Your task to perform on an android device: Empty the shopping cart on walmart.com. Add razer blade to the cart on walmart.com Image 0: 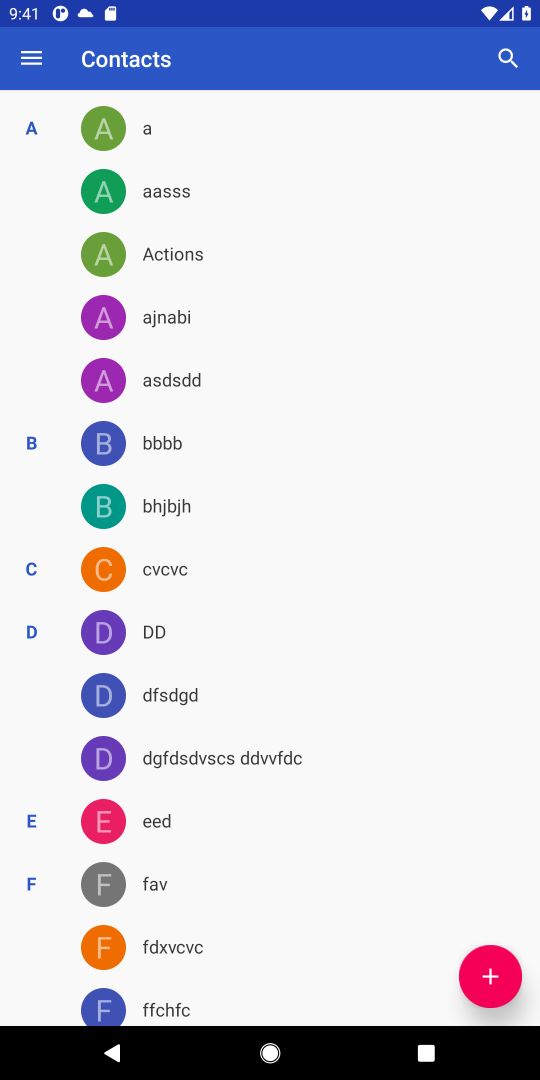
Step 0: press home button
Your task to perform on an android device: Empty the shopping cart on walmart.com. Add razer blade to the cart on walmart.com Image 1: 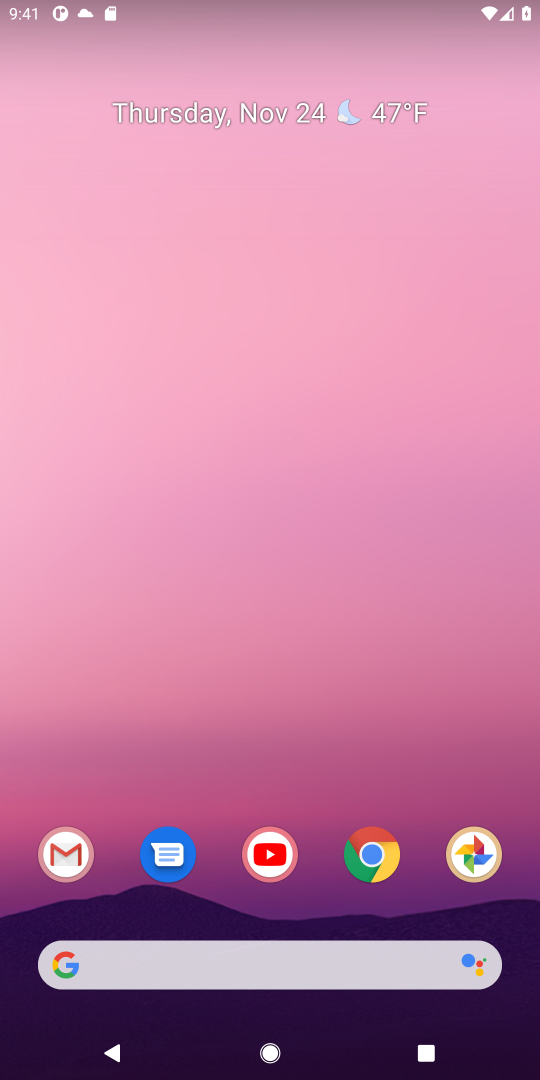
Step 1: click (376, 862)
Your task to perform on an android device: Empty the shopping cart on walmart.com. Add razer blade to the cart on walmart.com Image 2: 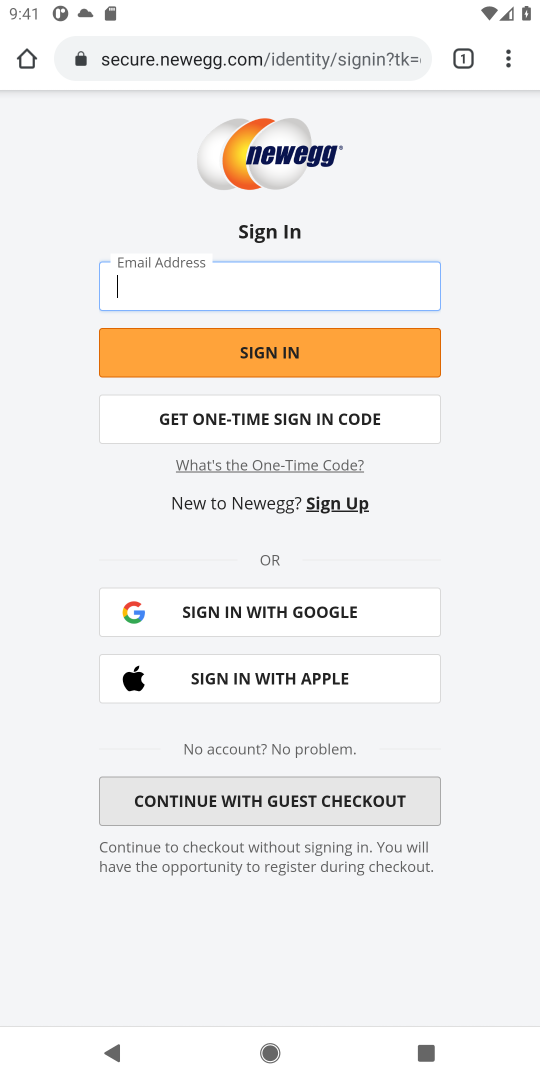
Step 2: click (187, 65)
Your task to perform on an android device: Empty the shopping cart on walmart.com. Add razer blade to the cart on walmart.com Image 3: 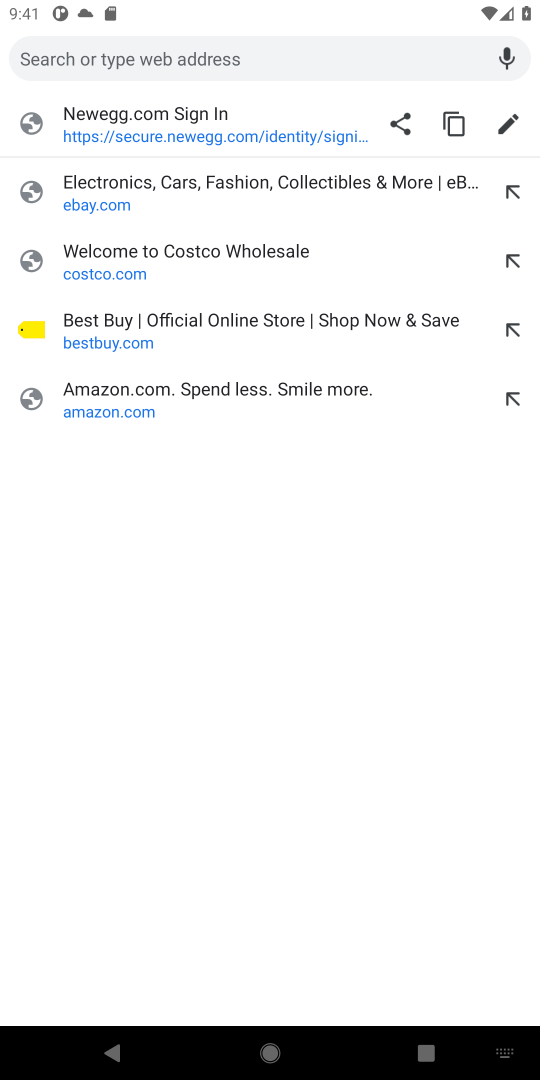
Step 3: type "walmart.com"
Your task to perform on an android device: Empty the shopping cart on walmart.com. Add razer blade to the cart on walmart.com Image 4: 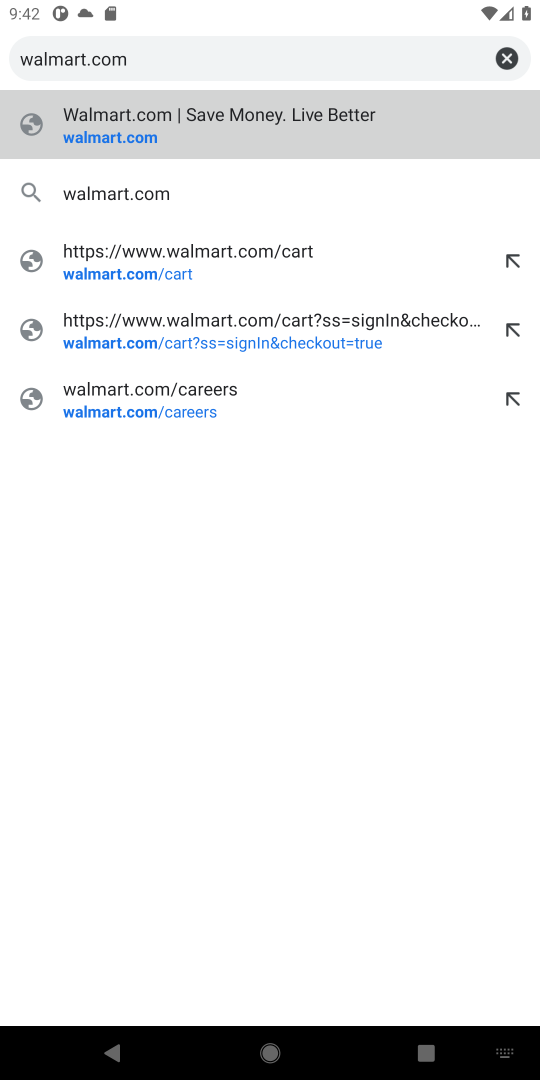
Step 4: click (126, 128)
Your task to perform on an android device: Empty the shopping cart on walmart.com. Add razer blade to the cart on walmart.com Image 5: 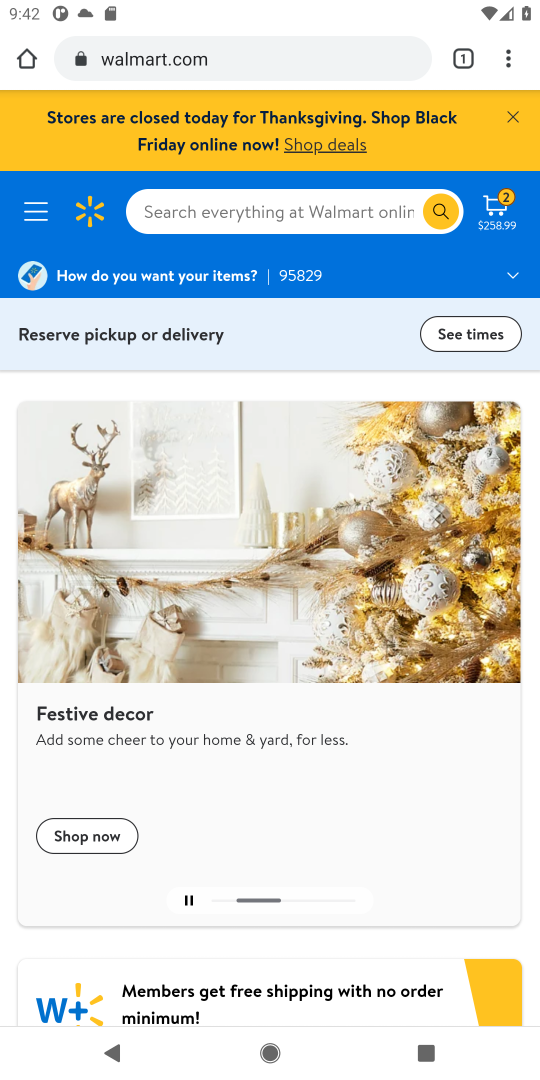
Step 5: click (487, 219)
Your task to perform on an android device: Empty the shopping cart on walmart.com. Add razer blade to the cart on walmart.com Image 6: 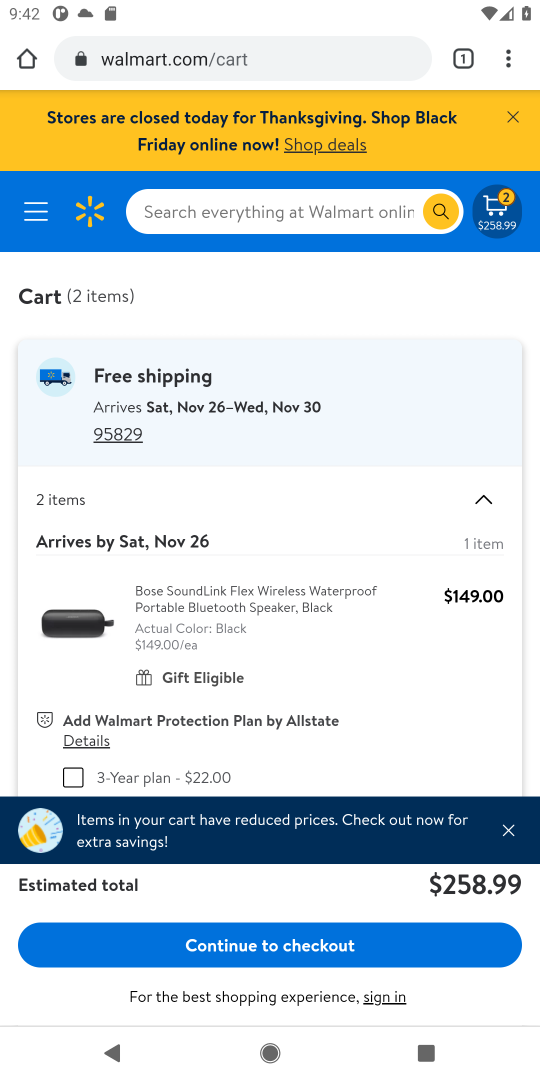
Step 6: drag from (197, 574) to (206, 346)
Your task to perform on an android device: Empty the shopping cart on walmart.com. Add razer blade to the cart on walmart.com Image 7: 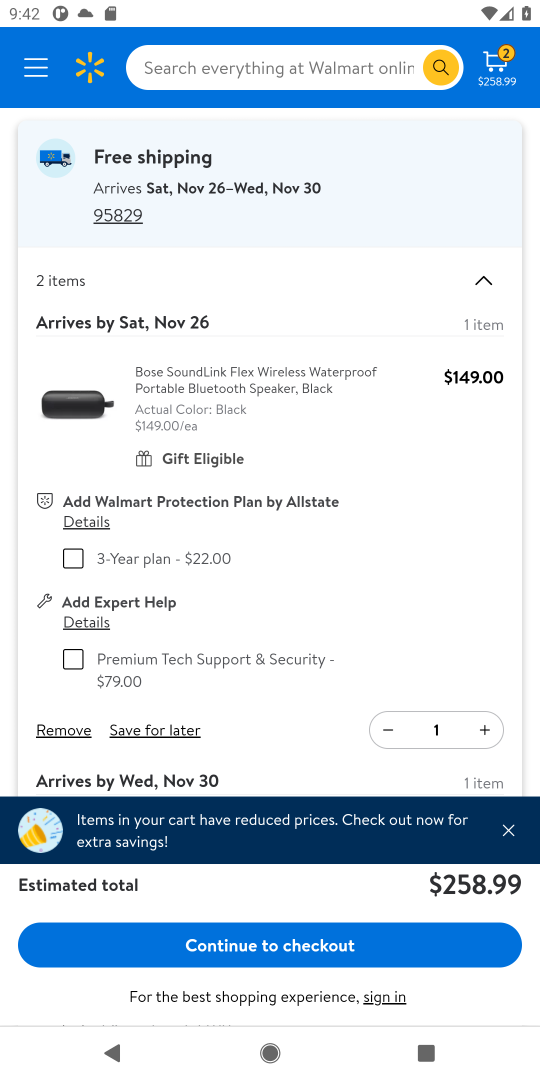
Step 7: click (53, 736)
Your task to perform on an android device: Empty the shopping cart on walmart.com. Add razer blade to the cart on walmart.com Image 8: 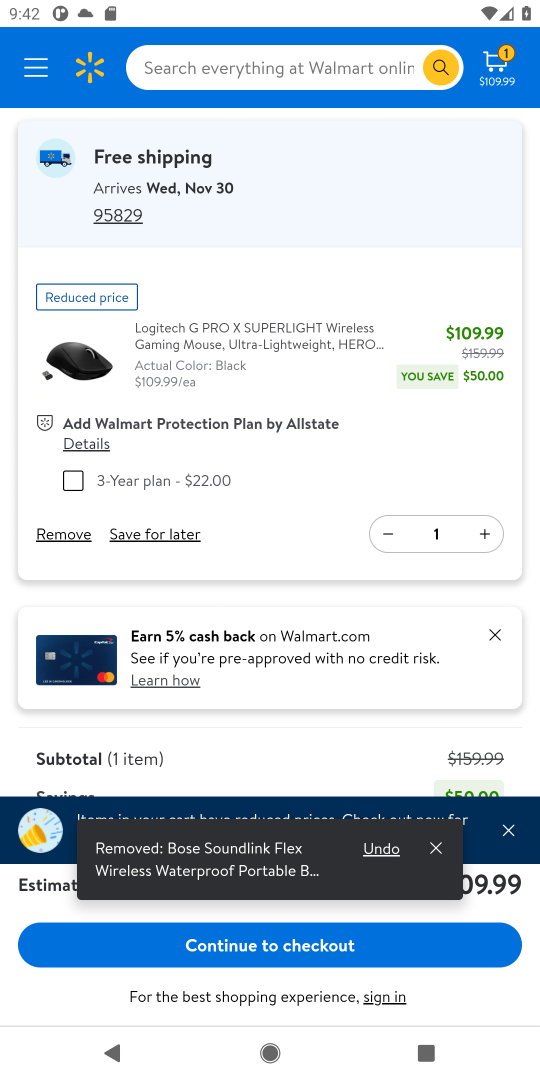
Step 8: click (58, 535)
Your task to perform on an android device: Empty the shopping cart on walmart.com. Add razer blade to the cart on walmart.com Image 9: 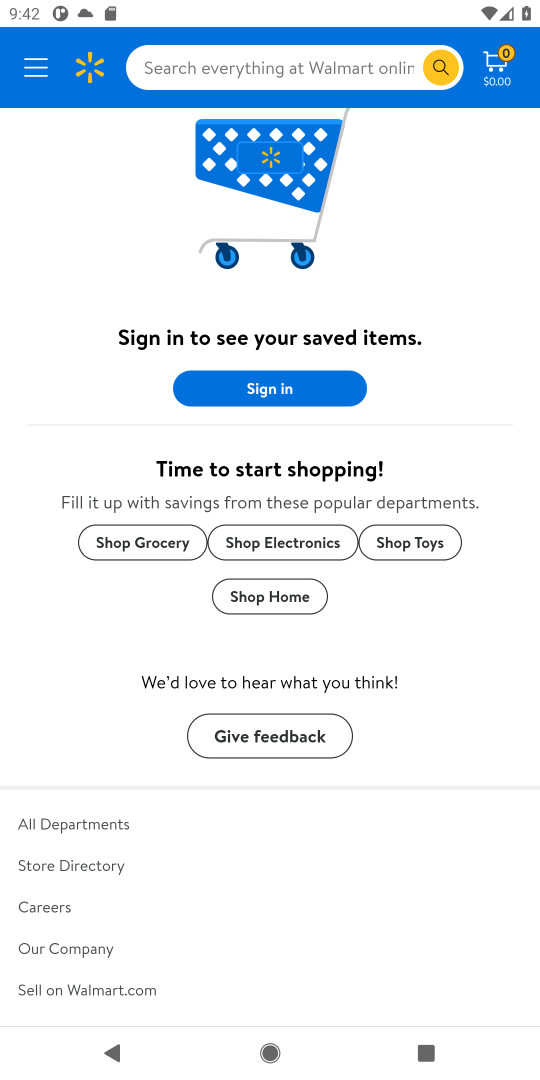
Step 9: click (246, 64)
Your task to perform on an android device: Empty the shopping cart on walmart.com. Add razer blade to the cart on walmart.com Image 10: 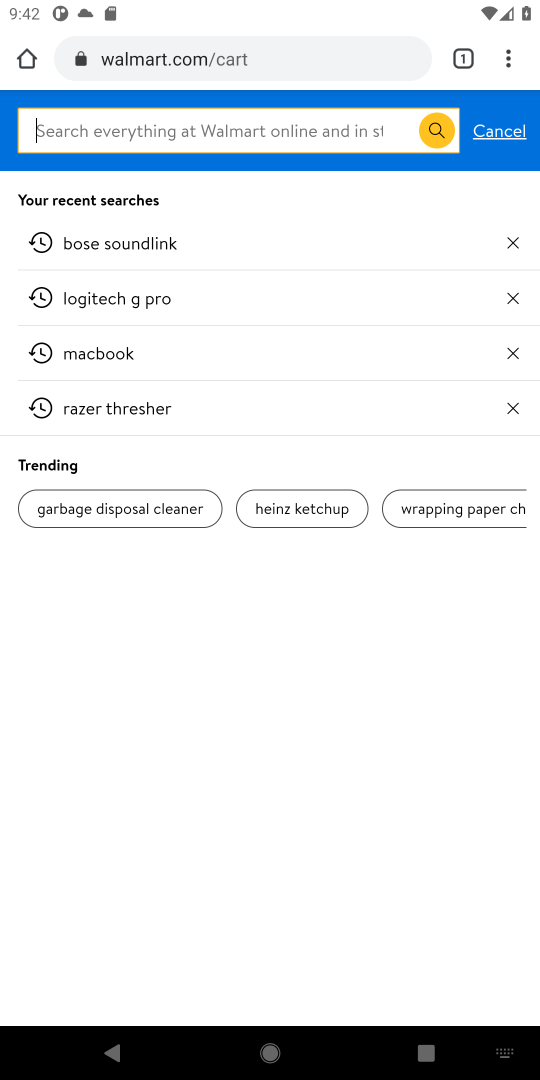
Step 10: type "razer blade "
Your task to perform on an android device: Empty the shopping cart on walmart.com. Add razer blade to the cart on walmart.com Image 11: 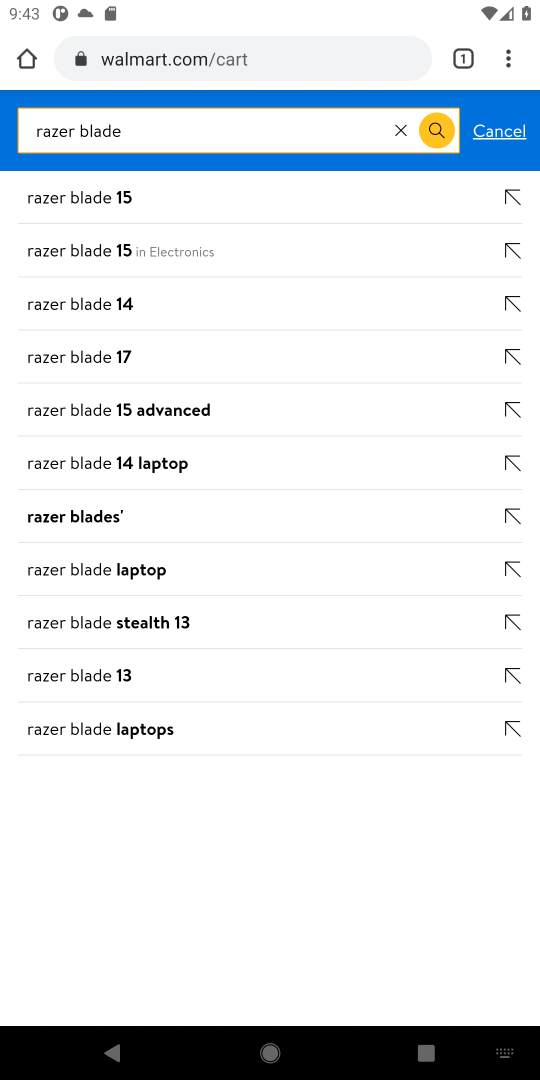
Step 11: click (68, 204)
Your task to perform on an android device: Empty the shopping cart on walmart.com. Add razer blade to the cart on walmart.com Image 12: 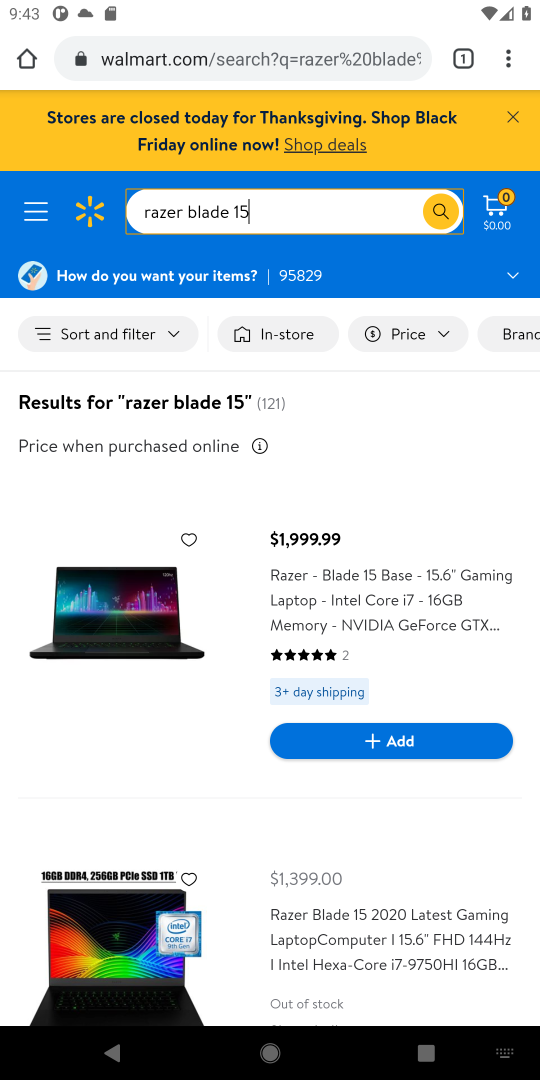
Step 12: click (396, 749)
Your task to perform on an android device: Empty the shopping cart on walmart.com. Add razer blade to the cart on walmart.com Image 13: 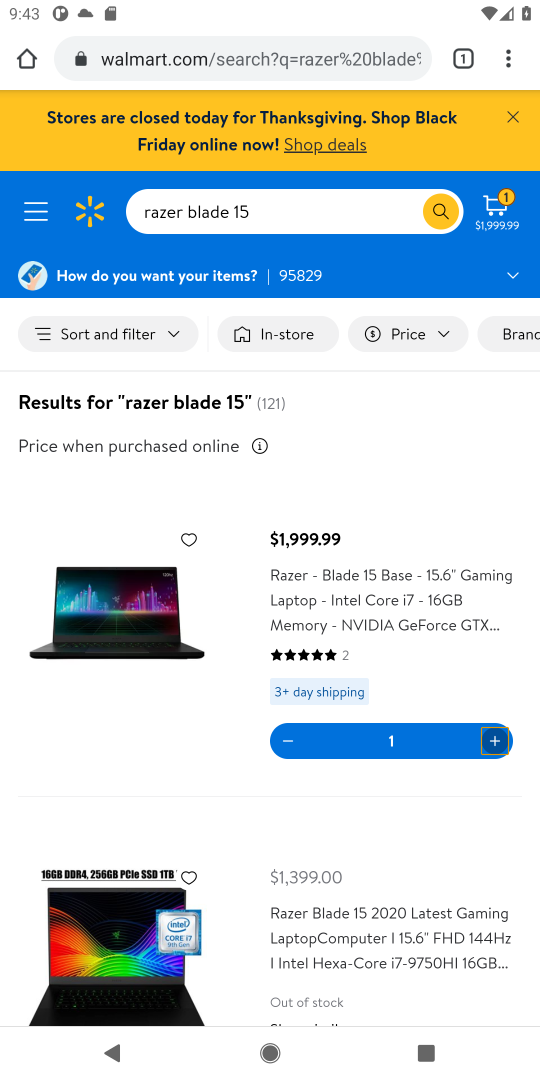
Step 13: task complete